Your task to perform on an android device: Go to eBay Image 0: 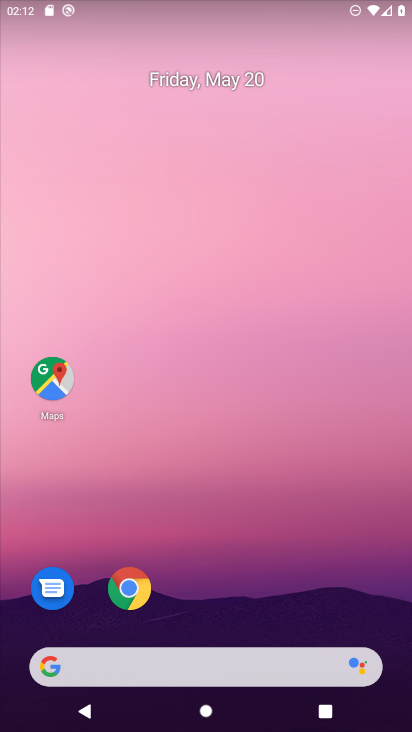
Step 0: click (129, 587)
Your task to perform on an android device: Go to eBay Image 1: 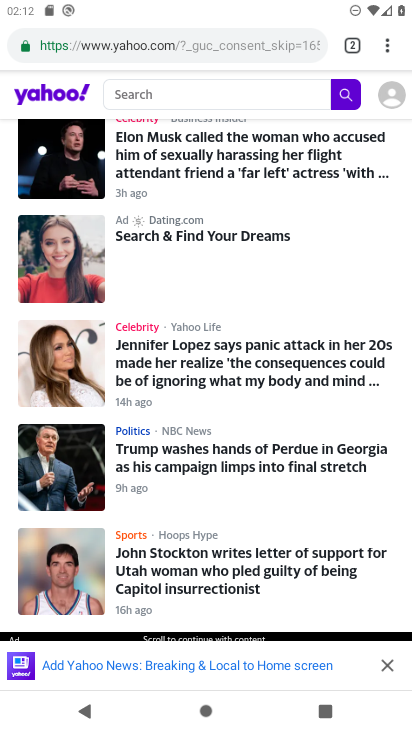
Step 1: click (181, 41)
Your task to perform on an android device: Go to eBay Image 2: 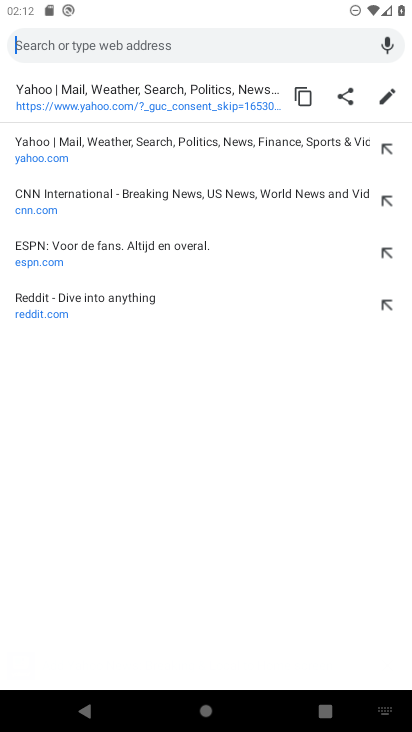
Step 2: type "ebay"
Your task to perform on an android device: Go to eBay Image 3: 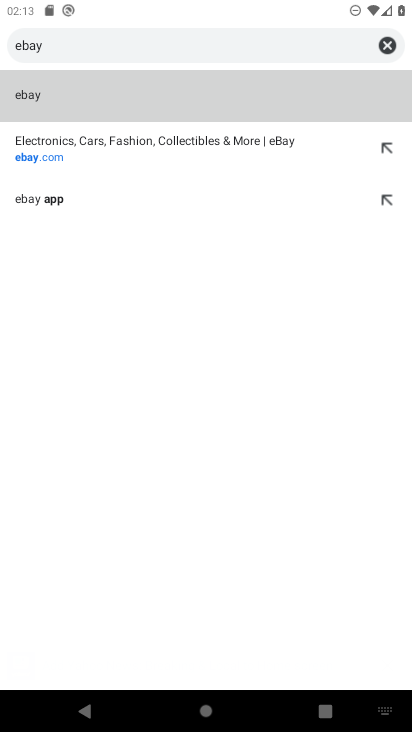
Step 3: click (47, 96)
Your task to perform on an android device: Go to eBay Image 4: 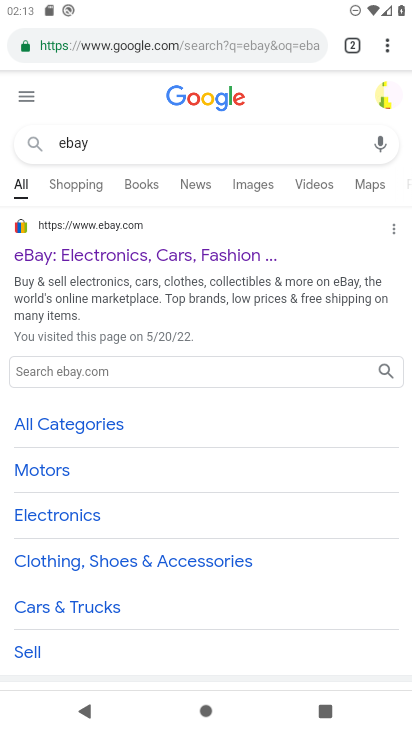
Step 4: click (63, 222)
Your task to perform on an android device: Go to eBay Image 5: 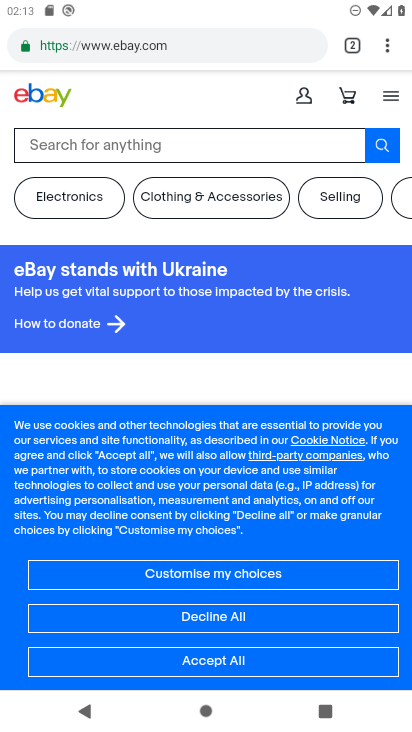
Step 5: task complete